Your task to perform on an android device: Go to display settings Image 0: 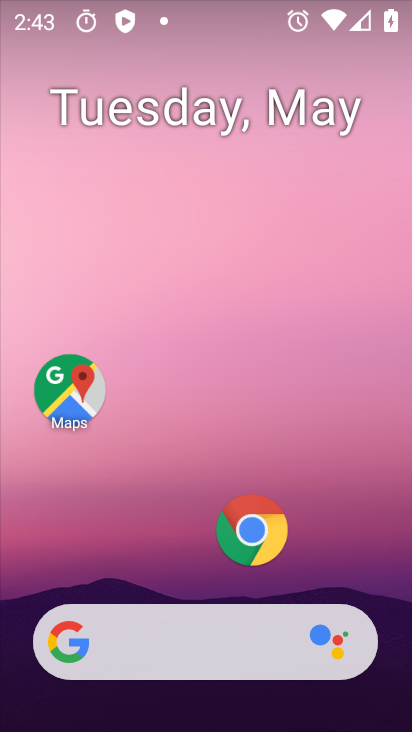
Step 0: drag from (201, 585) to (156, 37)
Your task to perform on an android device: Go to display settings Image 1: 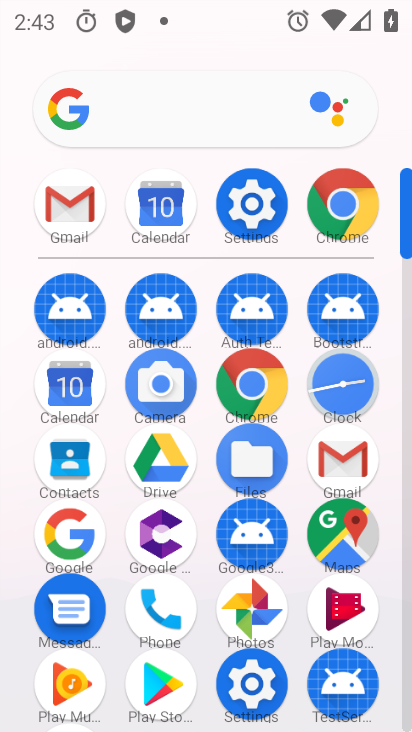
Step 1: click (252, 196)
Your task to perform on an android device: Go to display settings Image 2: 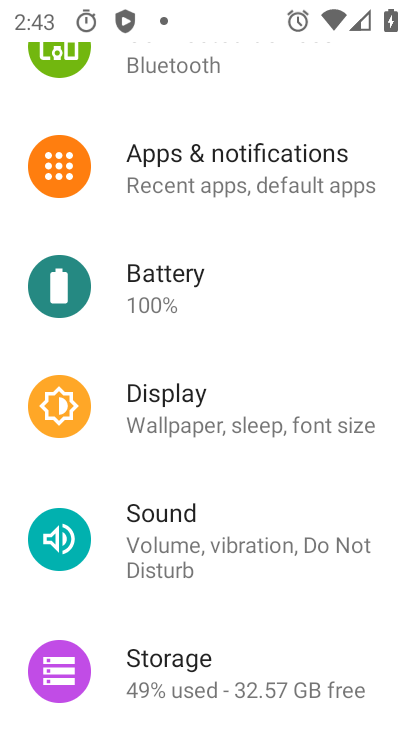
Step 2: click (175, 419)
Your task to perform on an android device: Go to display settings Image 3: 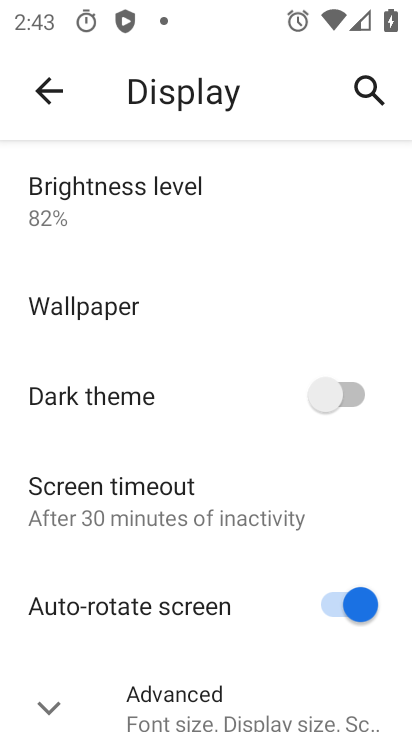
Step 3: click (218, 694)
Your task to perform on an android device: Go to display settings Image 4: 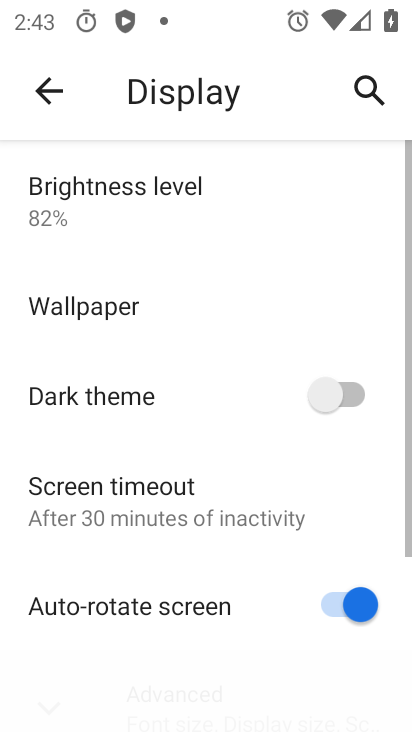
Step 4: task complete